Your task to perform on an android device: Open Chrome and go to the settings page Image 0: 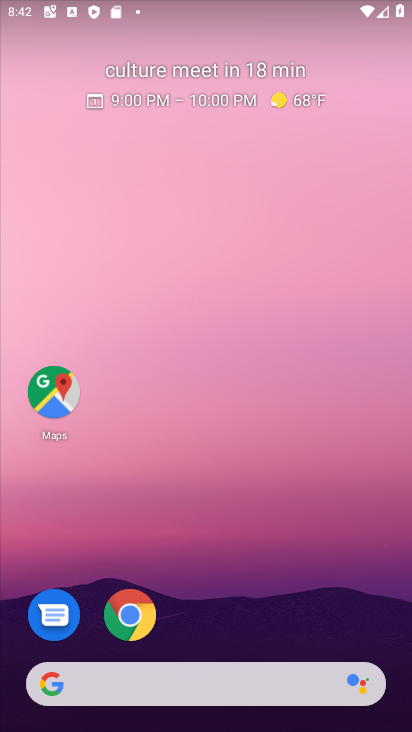
Step 0: click (113, 622)
Your task to perform on an android device: Open Chrome and go to the settings page Image 1: 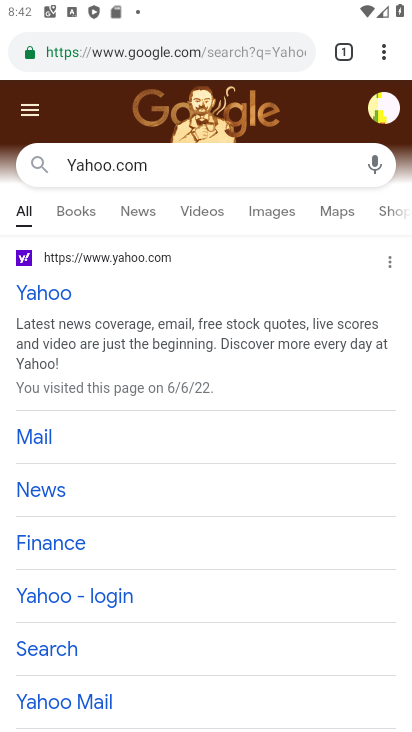
Step 1: click (385, 44)
Your task to perform on an android device: Open Chrome and go to the settings page Image 2: 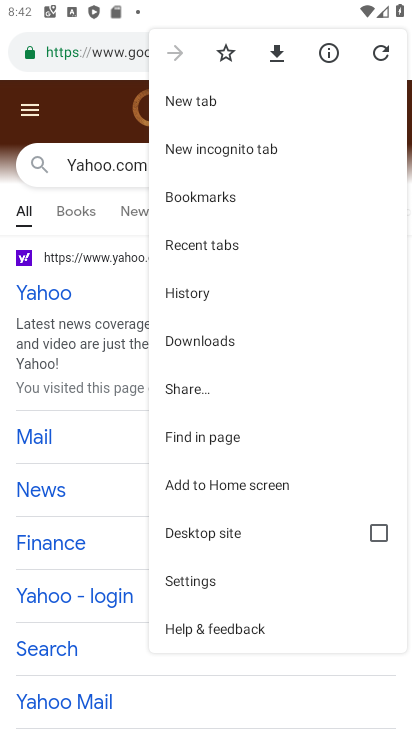
Step 2: click (179, 574)
Your task to perform on an android device: Open Chrome and go to the settings page Image 3: 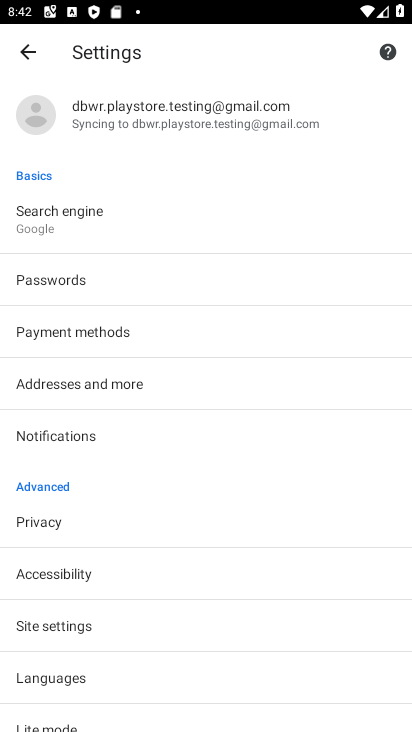
Step 3: task complete